Your task to perform on an android device: Open ESPN.com Image 0: 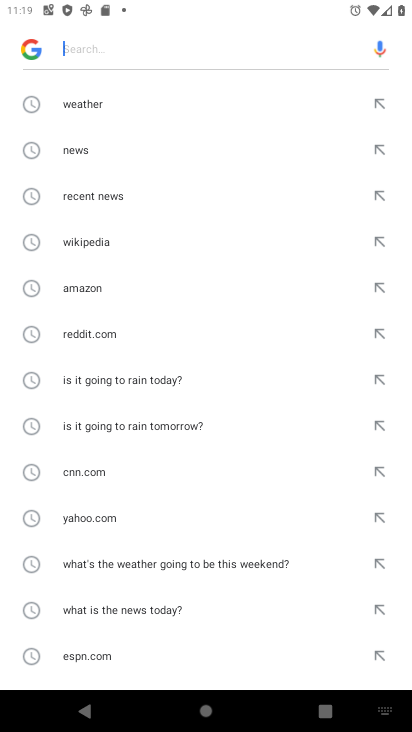
Step 0: press back button
Your task to perform on an android device: Open ESPN.com Image 1: 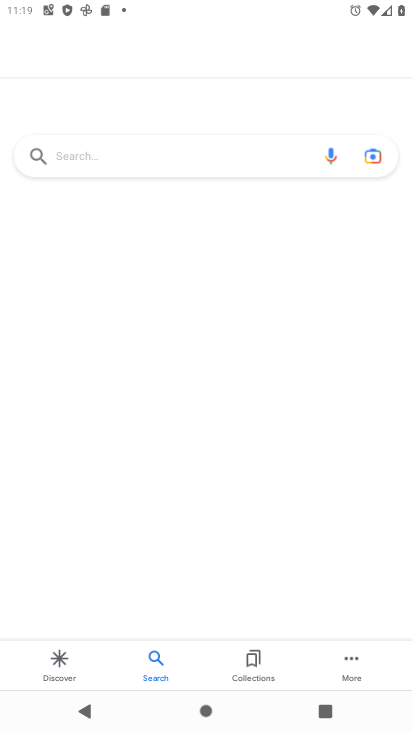
Step 1: press back button
Your task to perform on an android device: Open ESPN.com Image 2: 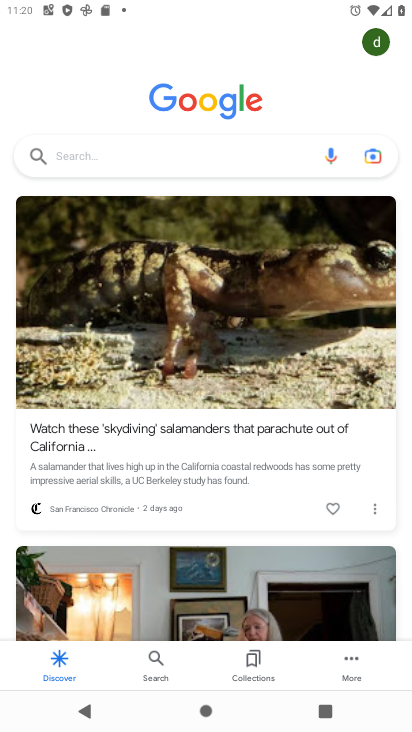
Step 2: press back button
Your task to perform on an android device: Open ESPN.com Image 3: 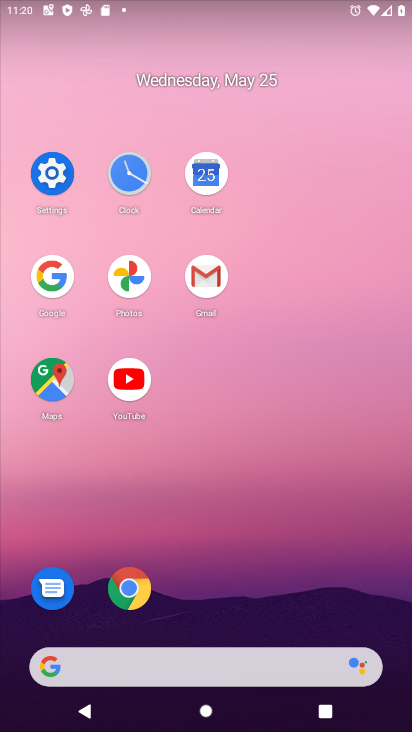
Step 3: click (129, 588)
Your task to perform on an android device: Open ESPN.com Image 4: 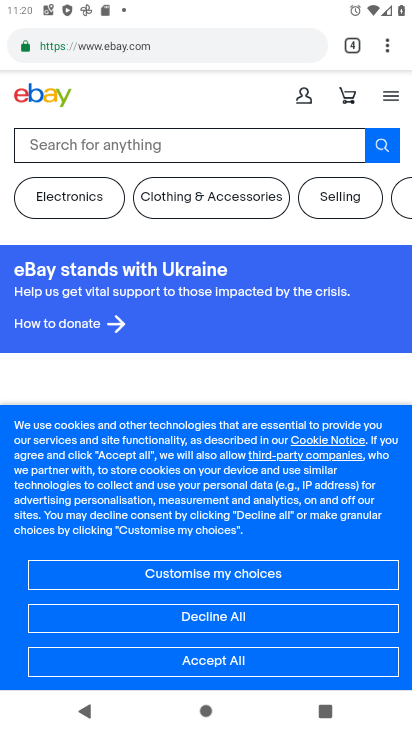
Step 4: click (343, 50)
Your task to perform on an android device: Open ESPN.com Image 5: 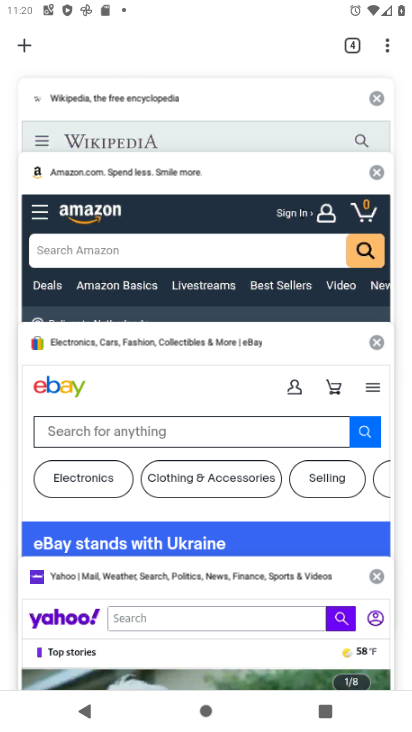
Step 5: click (29, 49)
Your task to perform on an android device: Open ESPN.com Image 6: 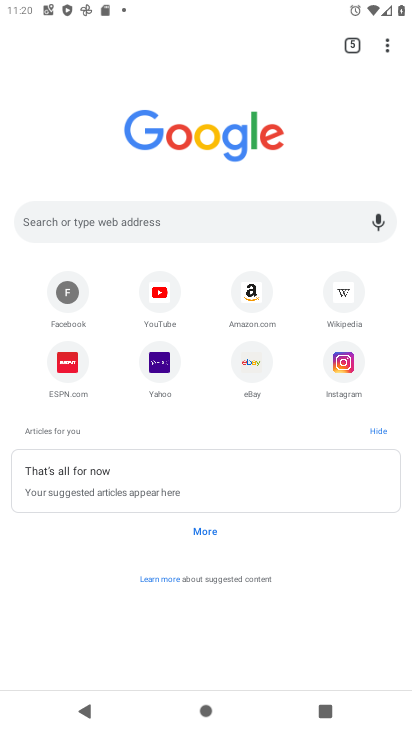
Step 6: click (76, 367)
Your task to perform on an android device: Open ESPN.com Image 7: 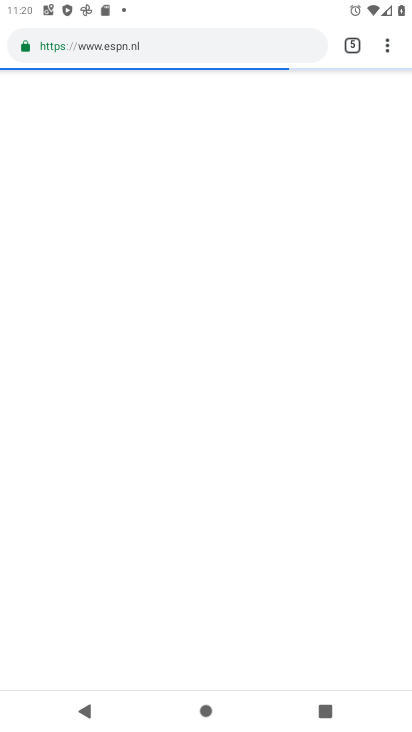
Step 7: task complete